Your task to perform on an android device: turn notification dots off Image 0: 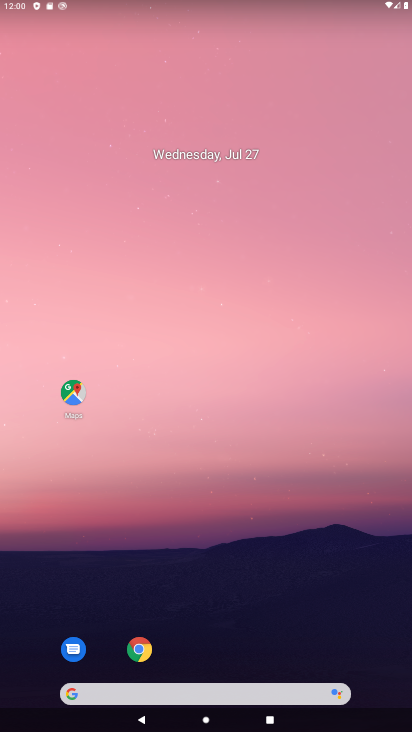
Step 0: drag from (245, 587) to (158, 141)
Your task to perform on an android device: turn notification dots off Image 1: 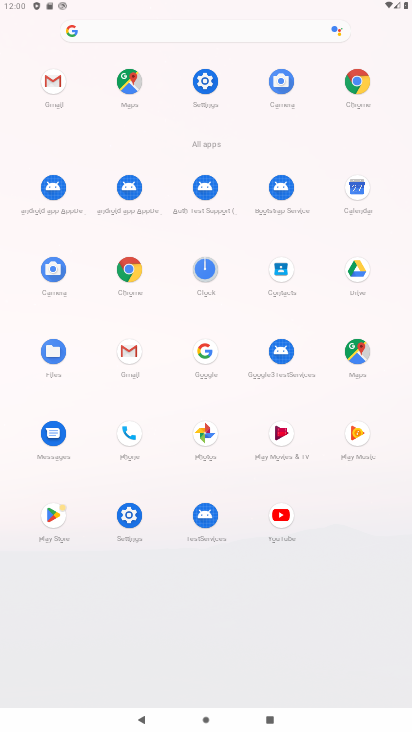
Step 1: click (201, 77)
Your task to perform on an android device: turn notification dots off Image 2: 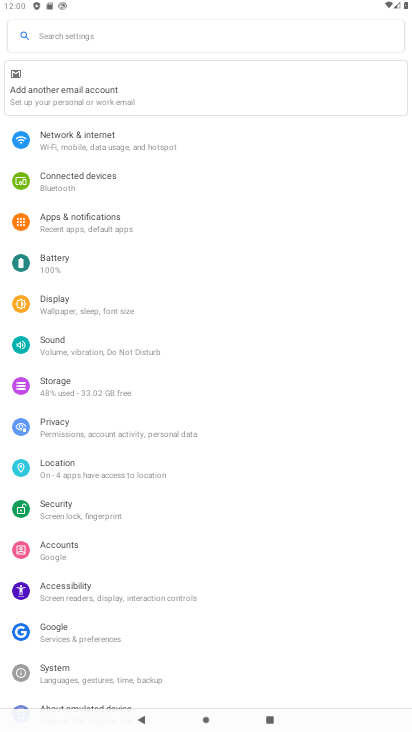
Step 2: click (76, 217)
Your task to perform on an android device: turn notification dots off Image 3: 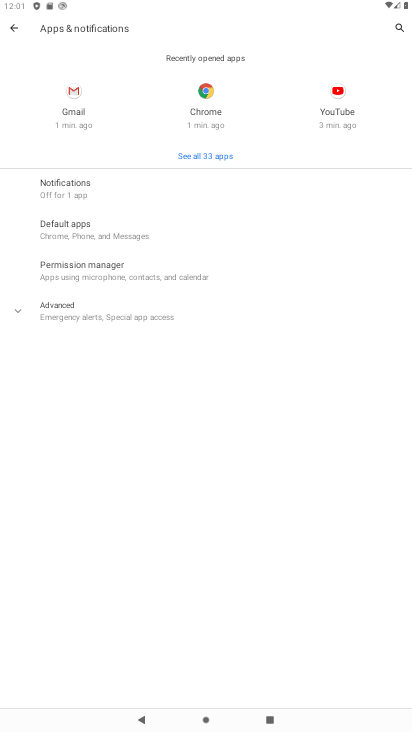
Step 3: click (64, 183)
Your task to perform on an android device: turn notification dots off Image 4: 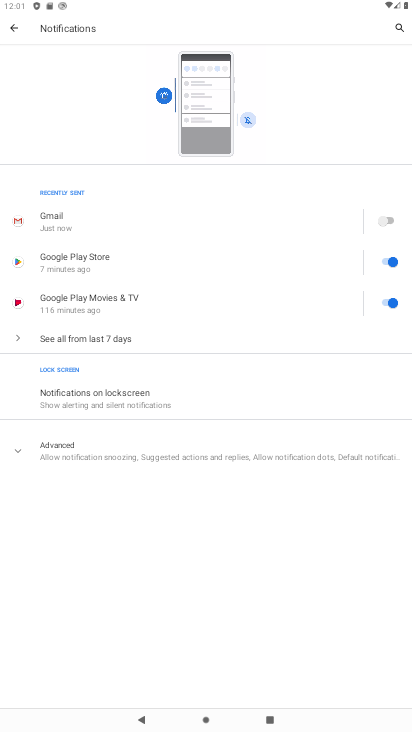
Step 4: click (22, 449)
Your task to perform on an android device: turn notification dots off Image 5: 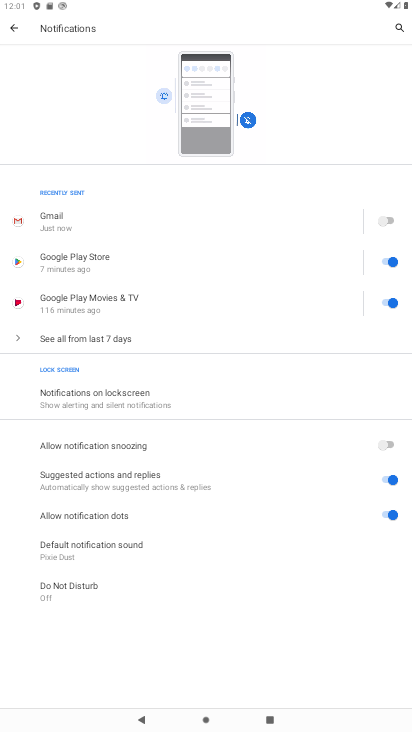
Step 5: click (387, 513)
Your task to perform on an android device: turn notification dots off Image 6: 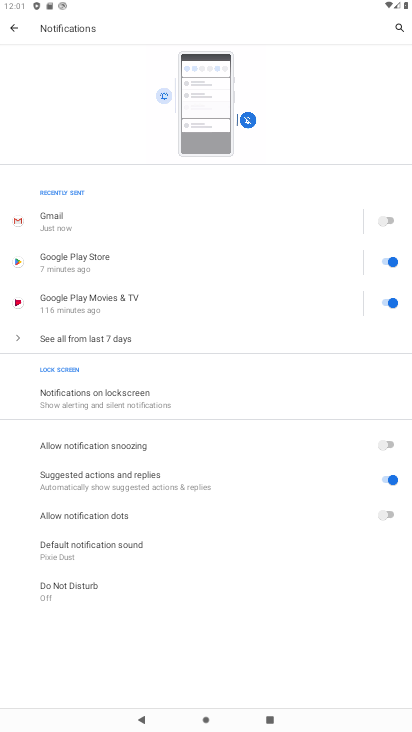
Step 6: task complete